Your task to perform on an android device: Open Google Chrome and click the shortcut for Amazon.com Image 0: 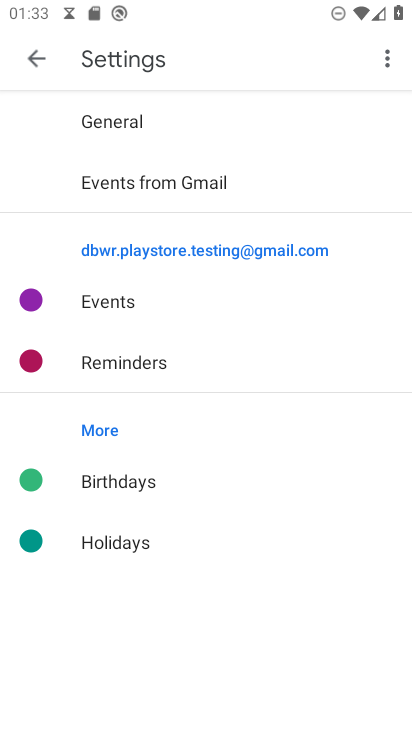
Step 0: press home button
Your task to perform on an android device: Open Google Chrome and click the shortcut for Amazon.com Image 1: 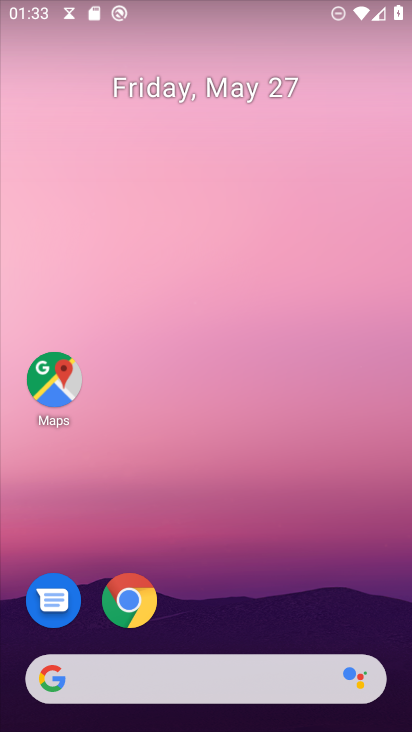
Step 1: click (123, 596)
Your task to perform on an android device: Open Google Chrome and click the shortcut for Amazon.com Image 2: 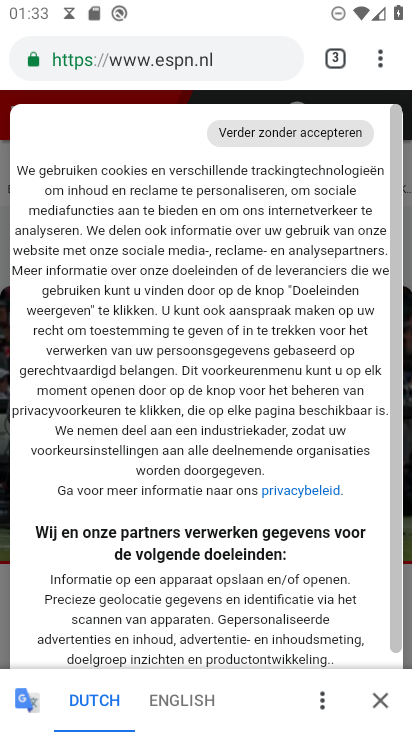
Step 2: click (334, 57)
Your task to perform on an android device: Open Google Chrome and click the shortcut for Amazon.com Image 3: 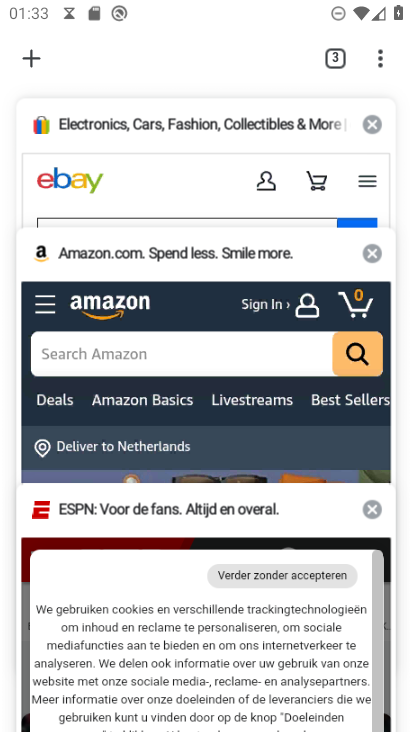
Step 3: click (233, 269)
Your task to perform on an android device: Open Google Chrome and click the shortcut for Amazon.com Image 4: 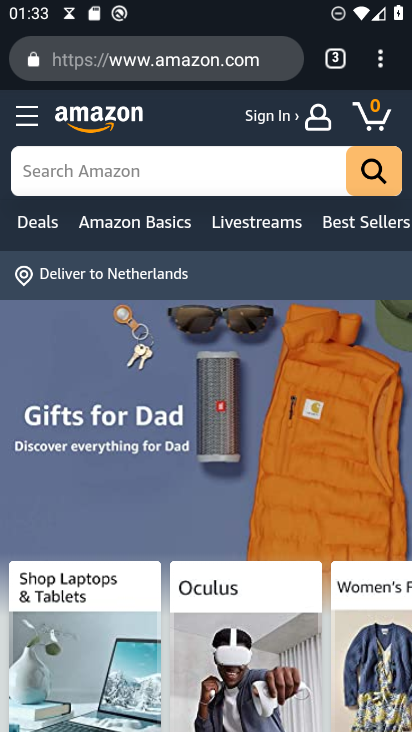
Step 4: task complete